Your task to perform on an android device: add a contact Image 0: 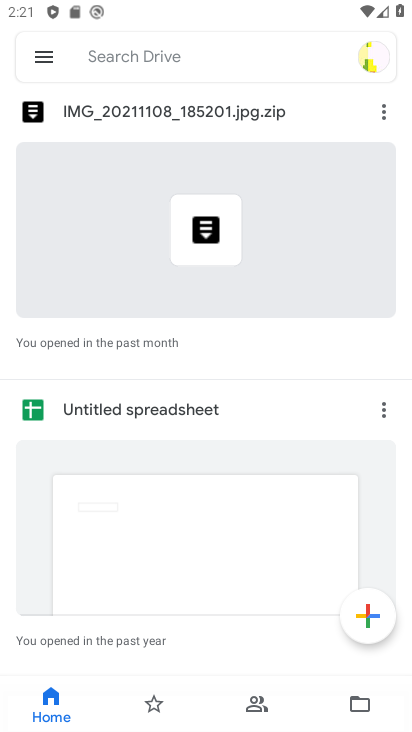
Step 0: press home button
Your task to perform on an android device: add a contact Image 1: 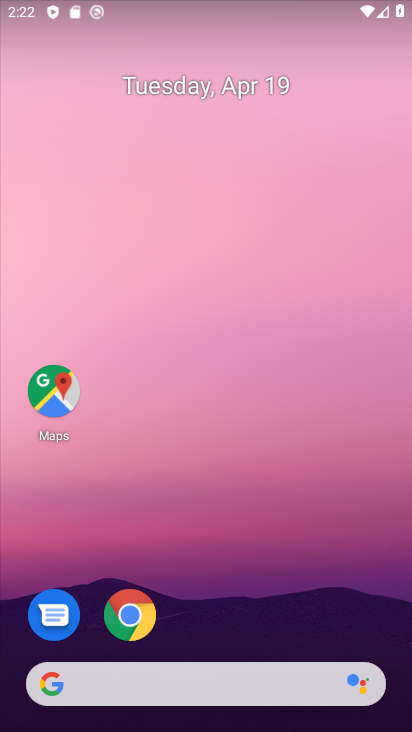
Step 1: drag from (239, 625) to (255, 199)
Your task to perform on an android device: add a contact Image 2: 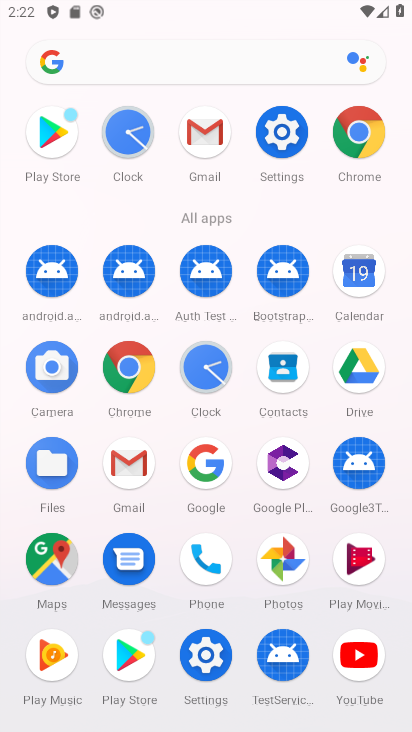
Step 2: click (205, 555)
Your task to perform on an android device: add a contact Image 3: 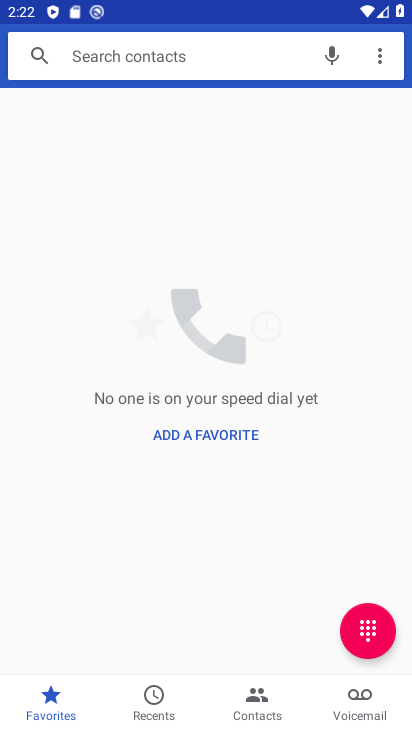
Step 3: click (215, 432)
Your task to perform on an android device: add a contact Image 4: 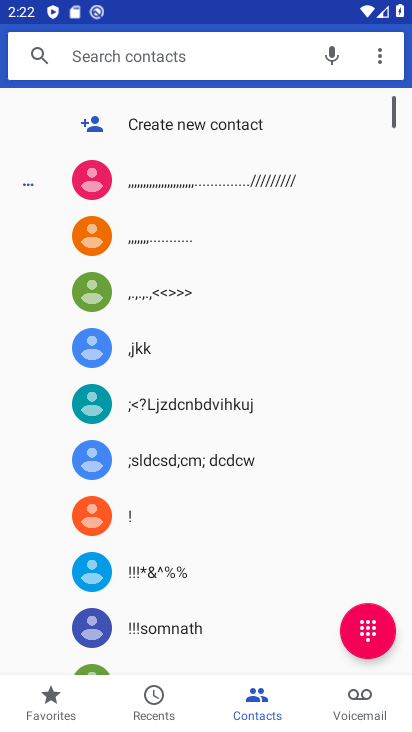
Step 4: click (226, 122)
Your task to perform on an android device: add a contact Image 5: 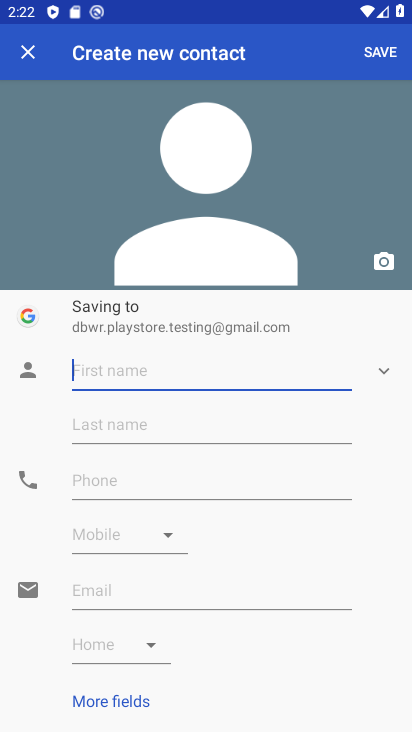
Step 5: click (200, 370)
Your task to perform on an android device: add a contact Image 6: 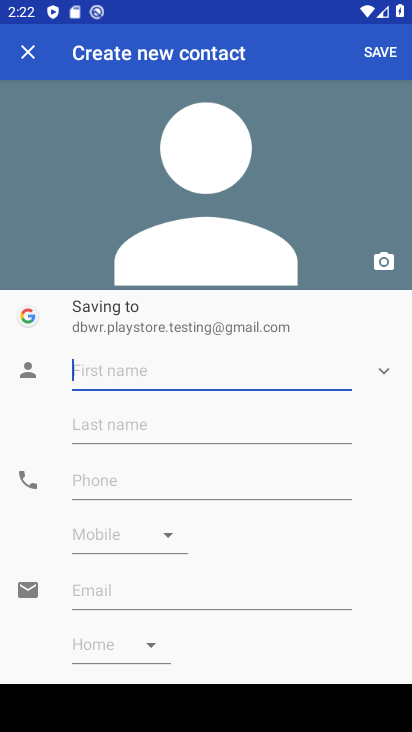
Step 6: type "mmmmmmmmmmmmmm"
Your task to perform on an android device: add a contact Image 7: 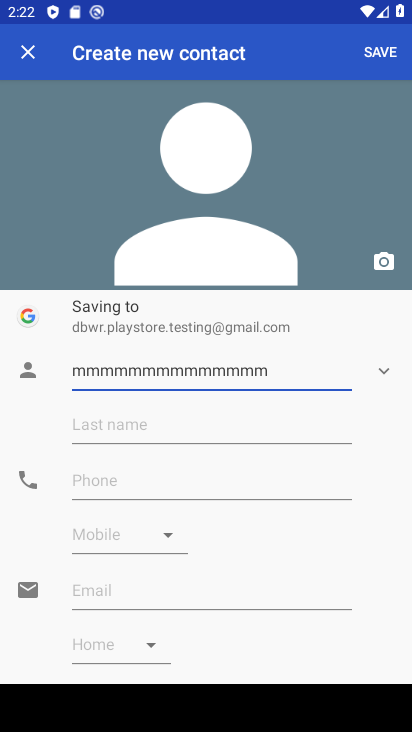
Step 7: click (241, 474)
Your task to perform on an android device: add a contact Image 8: 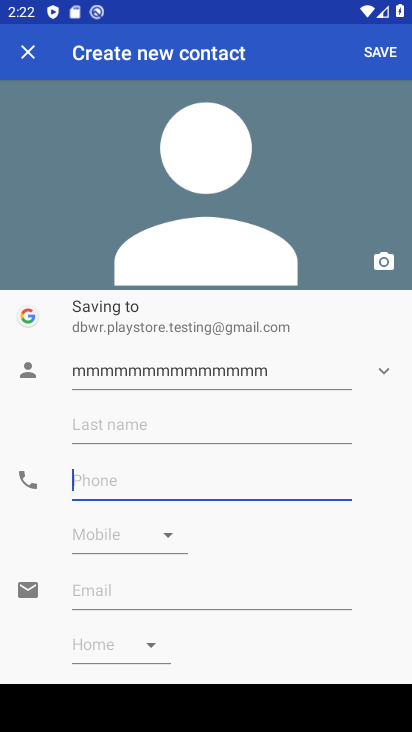
Step 8: type "000000000000"
Your task to perform on an android device: add a contact Image 9: 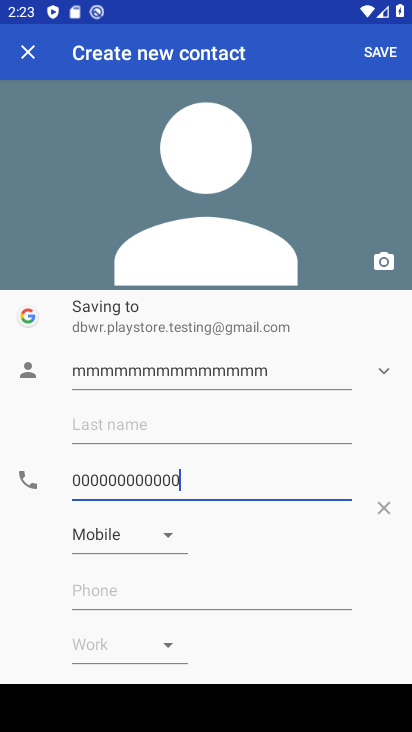
Step 9: click (367, 49)
Your task to perform on an android device: add a contact Image 10: 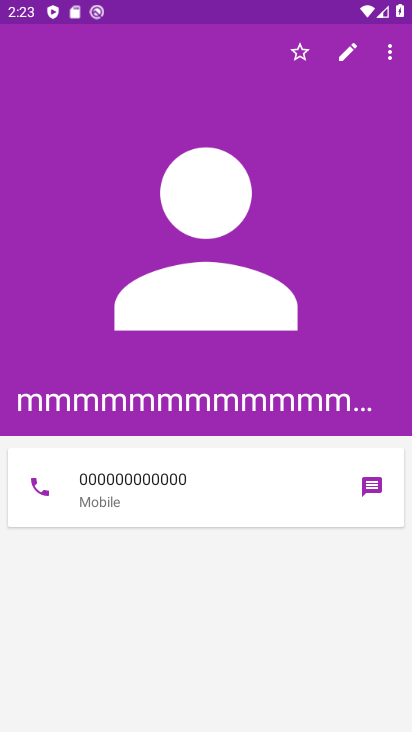
Step 10: task complete